Your task to perform on an android device: When is my next meeting? Image 0: 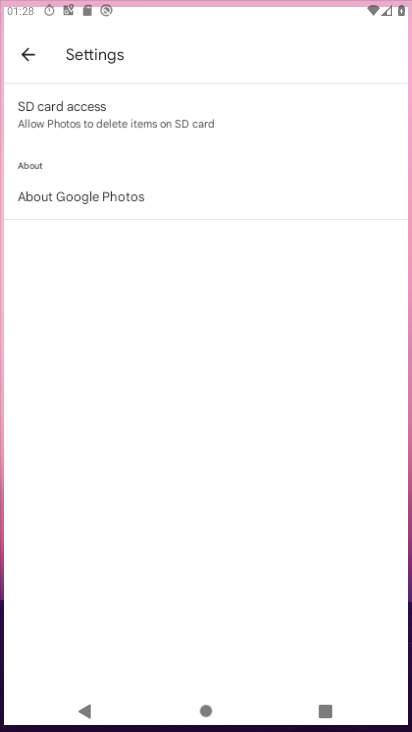
Step 0: drag from (255, 648) to (256, 33)
Your task to perform on an android device: When is my next meeting? Image 1: 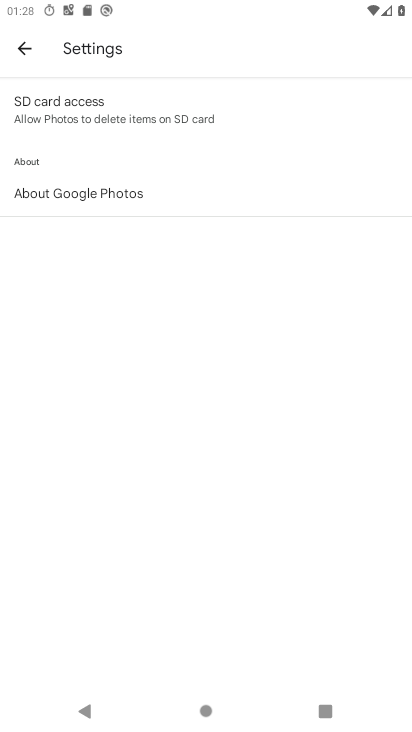
Step 1: press home button
Your task to perform on an android device: When is my next meeting? Image 2: 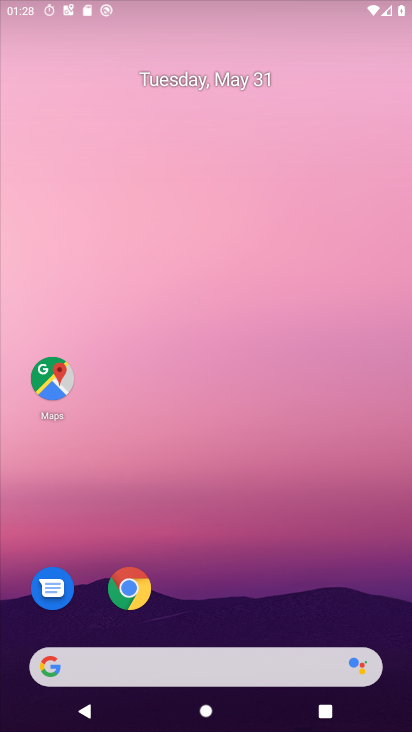
Step 2: drag from (249, 686) to (314, 5)
Your task to perform on an android device: When is my next meeting? Image 3: 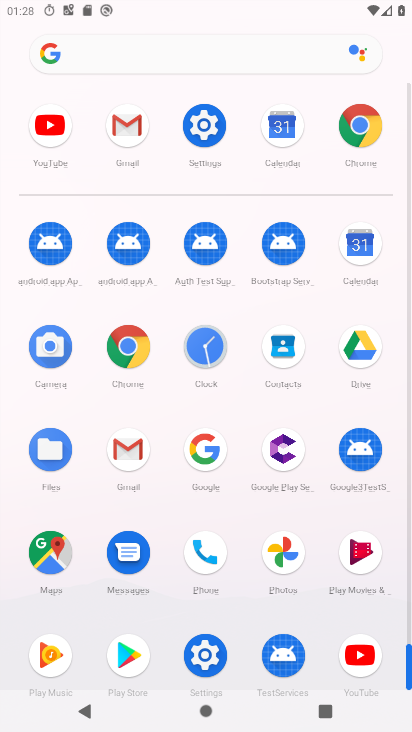
Step 3: click (134, 348)
Your task to perform on an android device: When is my next meeting? Image 4: 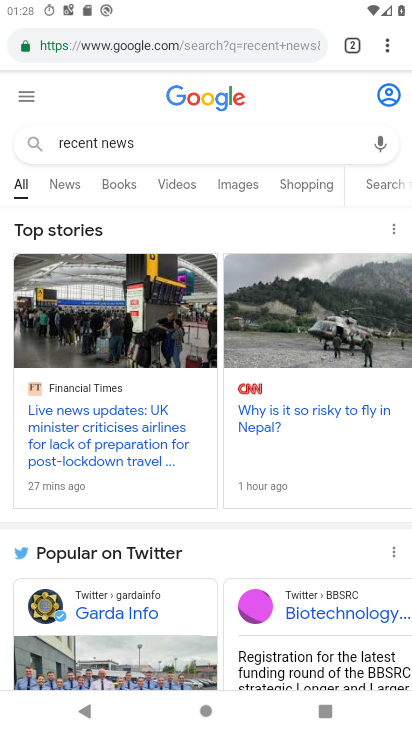
Step 4: press home button
Your task to perform on an android device: When is my next meeting? Image 5: 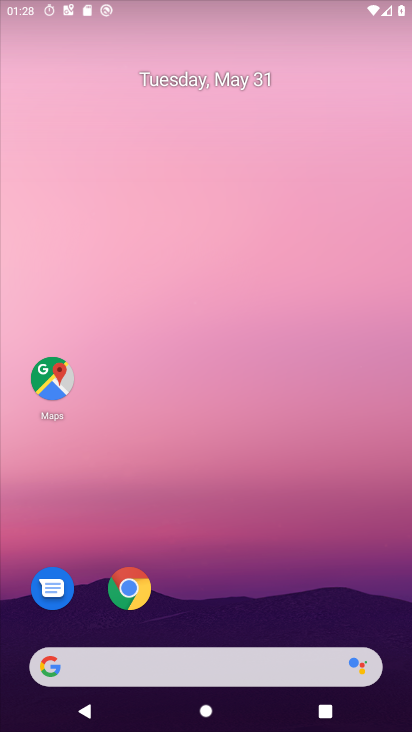
Step 5: drag from (263, 600) to (311, 0)
Your task to perform on an android device: When is my next meeting? Image 6: 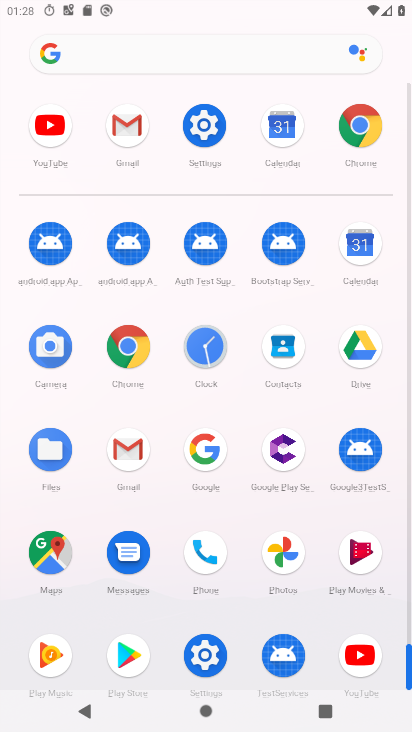
Step 6: click (356, 255)
Your task to perform on an android device: When is my next meeting? Image 7: 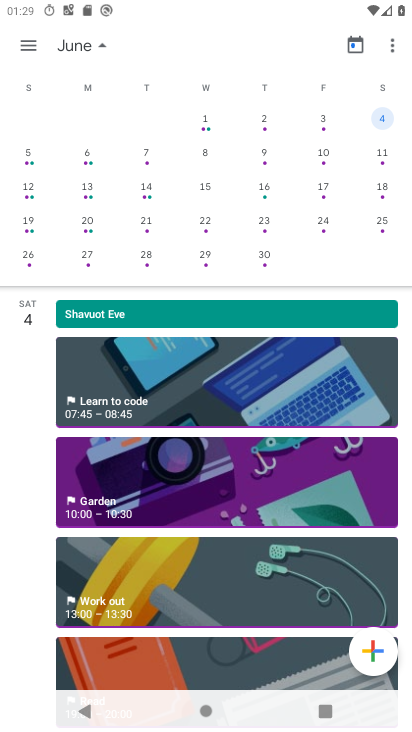
Step 7: drag from (60, 230) to (380, 222)
Your task to perform on an android device: When is my next meeting? Image 8: 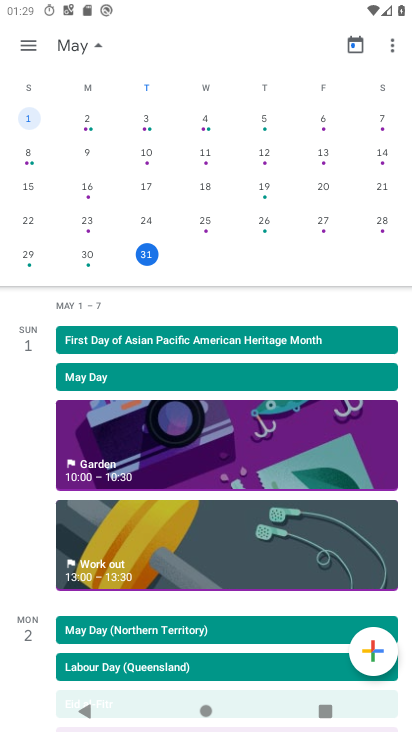
Step 8: drag from (287, 227) to (10, 227)
Your task to perform on an android device: When is my next meeting? Image 9: 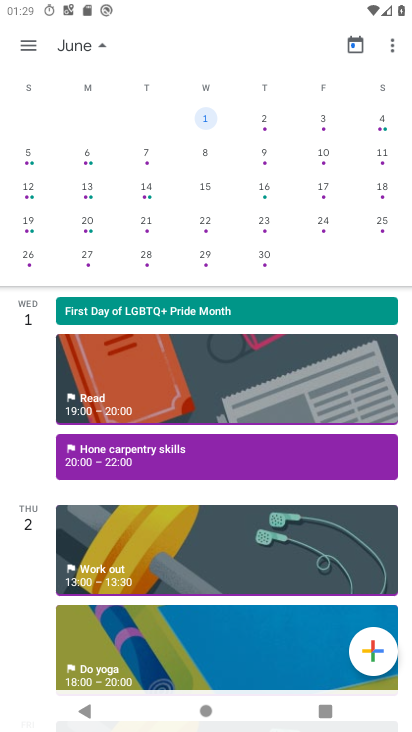
Step 9: click (195, 117)
Your task to perform on an android device: When is my next meeting? Image 10: 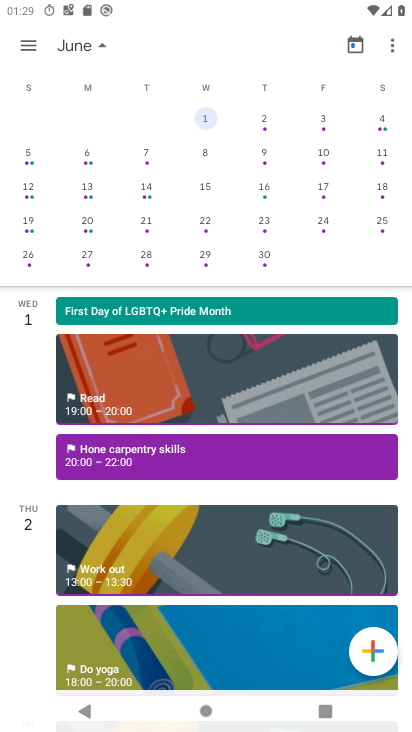
Step 10: task complete